Your task to perform on an android device: refresh tabs in the chrome app Image 0: 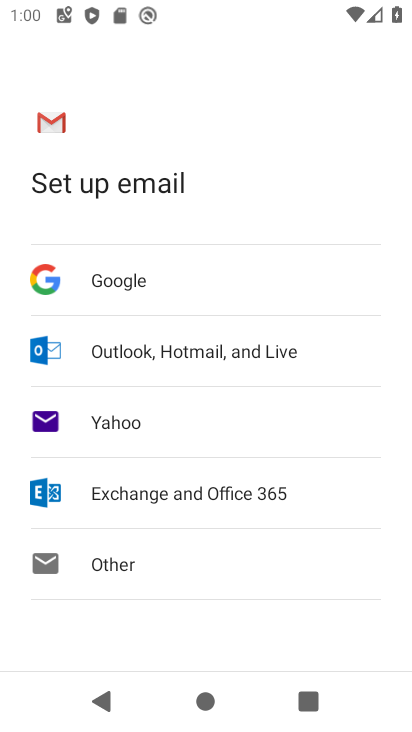
Step 0: press home button
Your task to perform on an android device: refresh tabs in the chrome app Image 1: 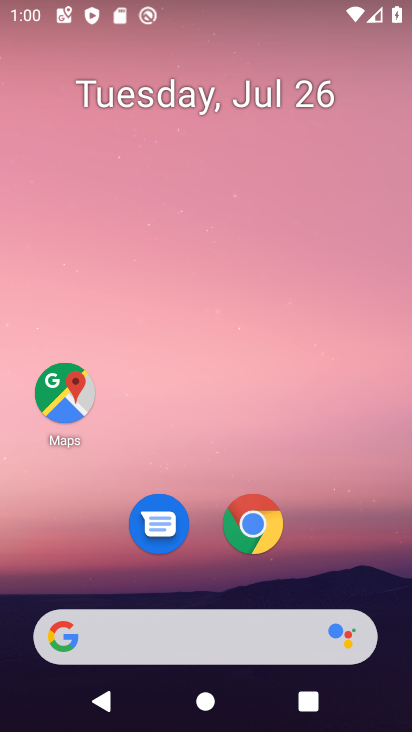
Step 1: click (261, 525)
Your task to perform on an android device: refresh tabs in the chrome app Image 2: 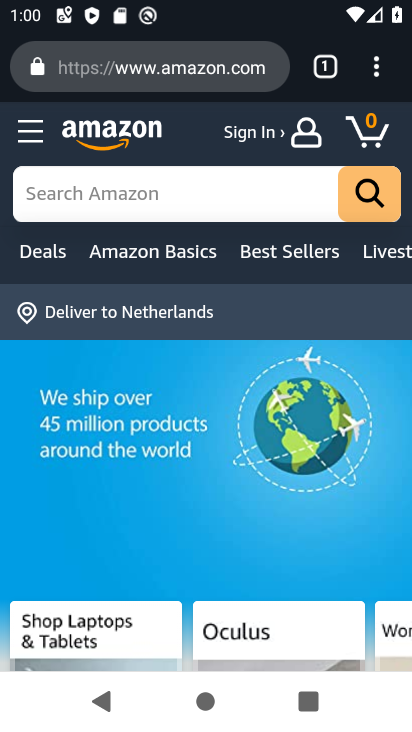
Step 2: click (376, 69)
Your task to perform on an android device: refresh tabs in the chrome app Image 3: 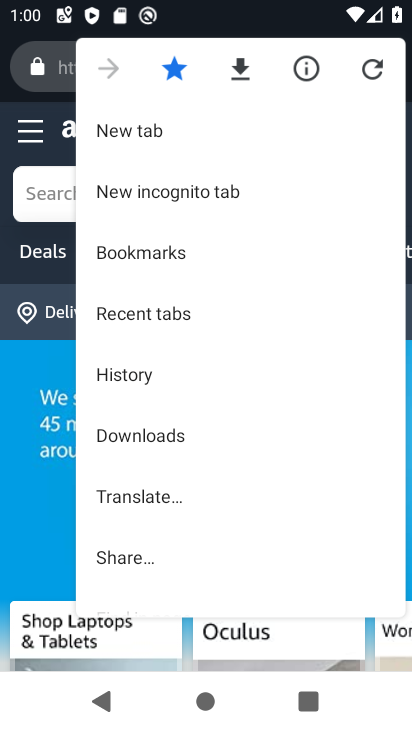
Step 3: drag from (246, 488) to (290, 146)
Your task to perform on an android device: refresh tabs in the chrome app Image 4: 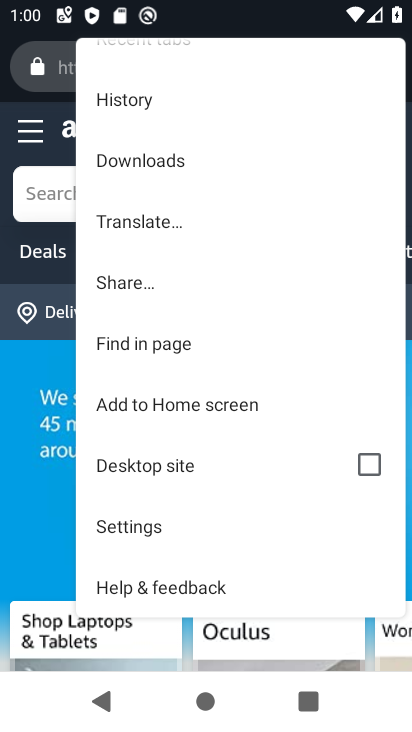
Step 4: drag from (194, 522) to (247, 195)
Your task to perform on an android device: refresh tabs in the chrome app Image 5: 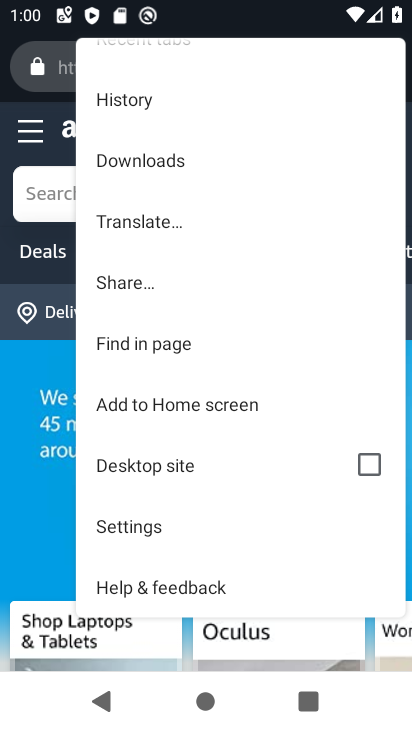
Step 5: drag from (226, 152) to (259, 526)
Your task to perform on an android device: refresh tabs in the chrome app Image 6: 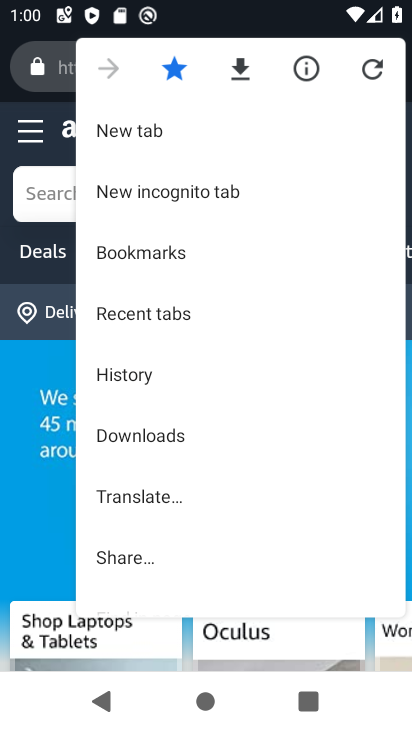
Step 6: click (368, 62)
Your task to perform on an android device: refresh tabs in the chrome app Image 7: 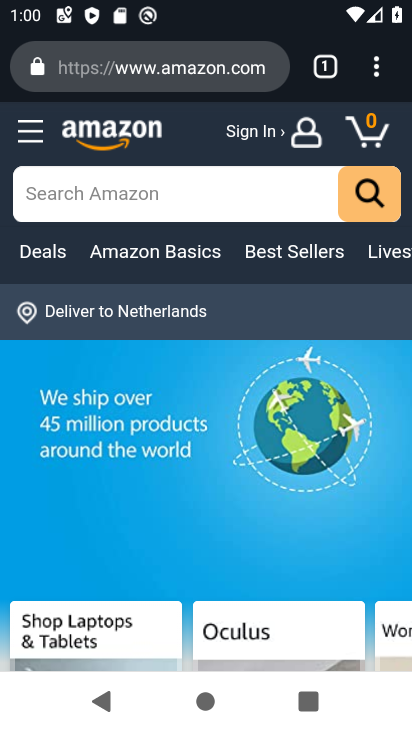
Step 7: task complete